Your task to perform on an android device: Open Chrome and go to settings Image 0: 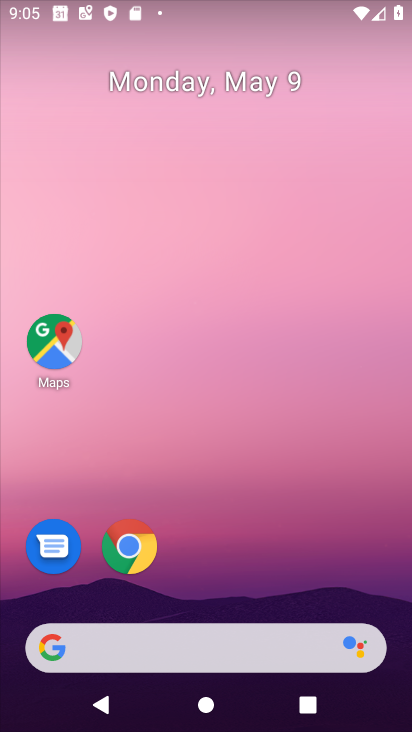
Step 0: drag from (320, 228) to (342, 136)
Your task to perform on an android device: Open Chrome and go to settings Image 1: 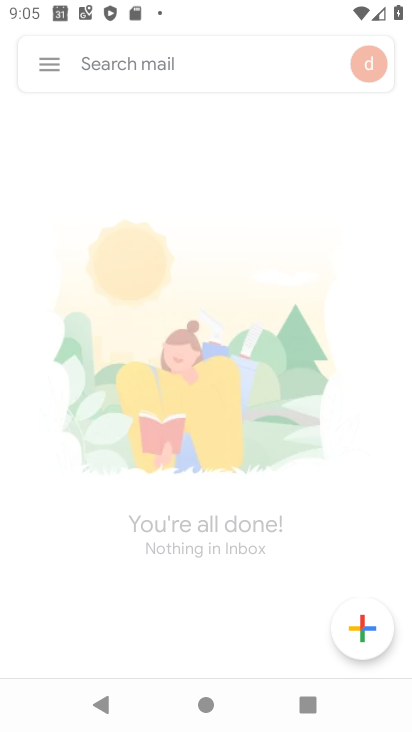
Step 1: press home button
Your task to perform on an android device: Open Chrome and go to settings Image 2: 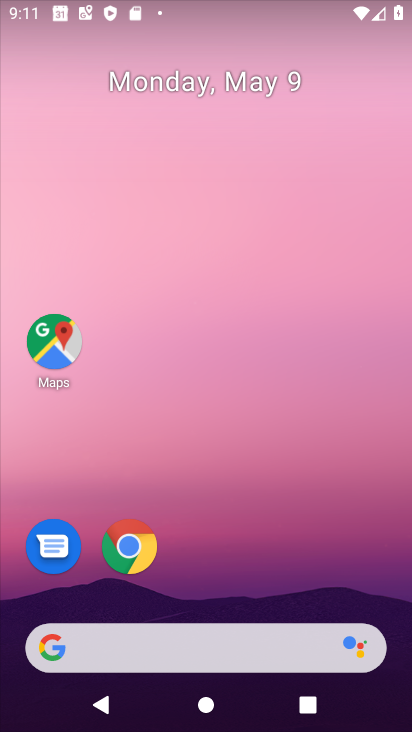
Step 2: click (119, 545)
Your task to perform on an android device: Open Chrome and go to settings Image 3: 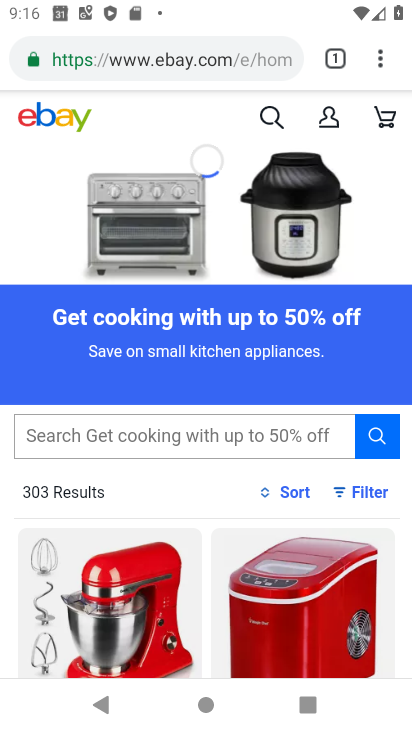
Step 3: click (379, 55)
Your task to perform on an android device: Open Chrome and go to settings Image 4: 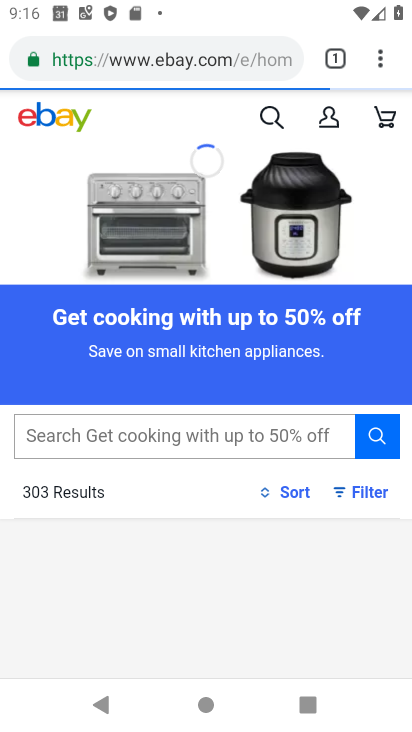
Step 4: click (380, 57)
Your task to perform on an android device: Open Chrome and go to settings Image 5: 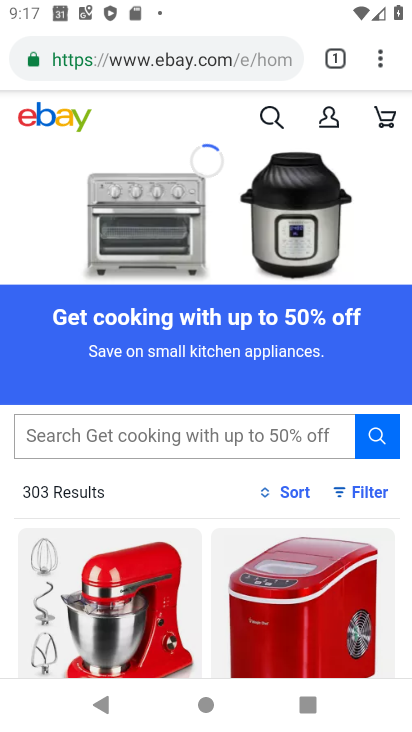
Step 5: click (378, 60)
Your task to perform on an android device: Open Chrome and go to settings Image 6: 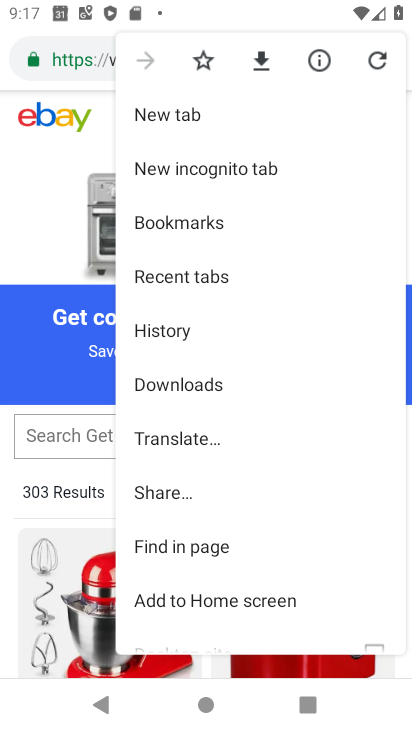
Step 6: drag from (350, 569) to (410, 177)
Your task to perform on an android device: Open Chrome and go to settings Image 7: 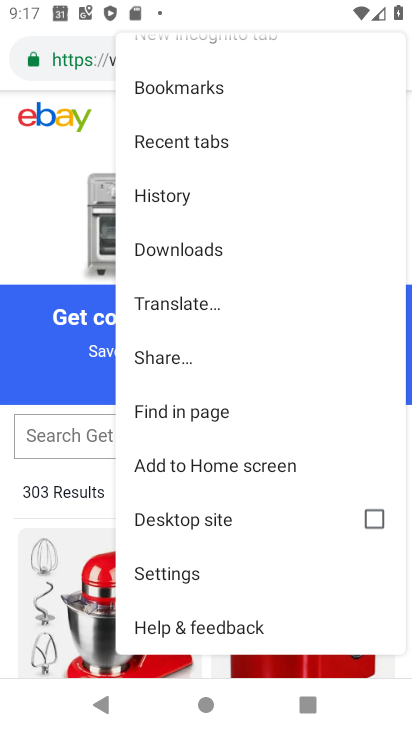
Step 7: click (212, 572)
Your task to perform on an android device: Open Chrome and go to settings Image 8: 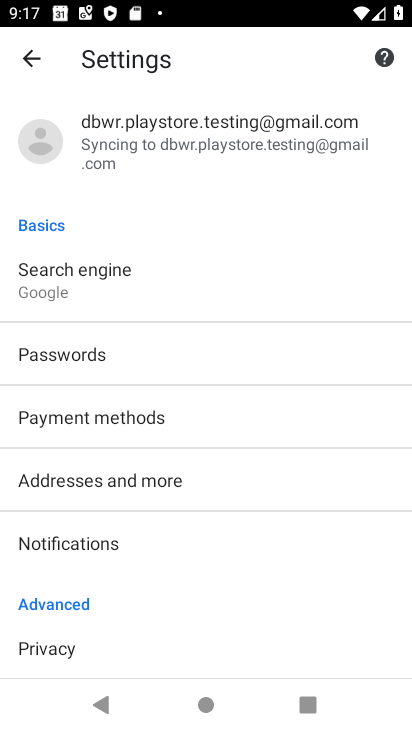
Step 8: task complete